Your task to perform on an android device: What's a good restaurant in Miami? Image 0: 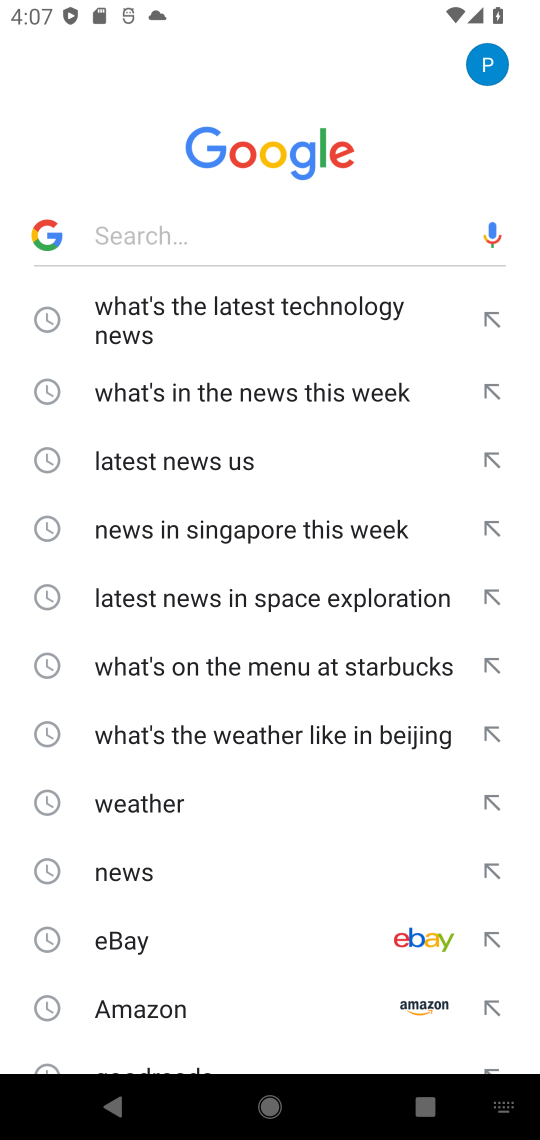
Step 0: click (253, 235)
Your task to perform on an android device: What's a good restaurant in Miami? Image 1: 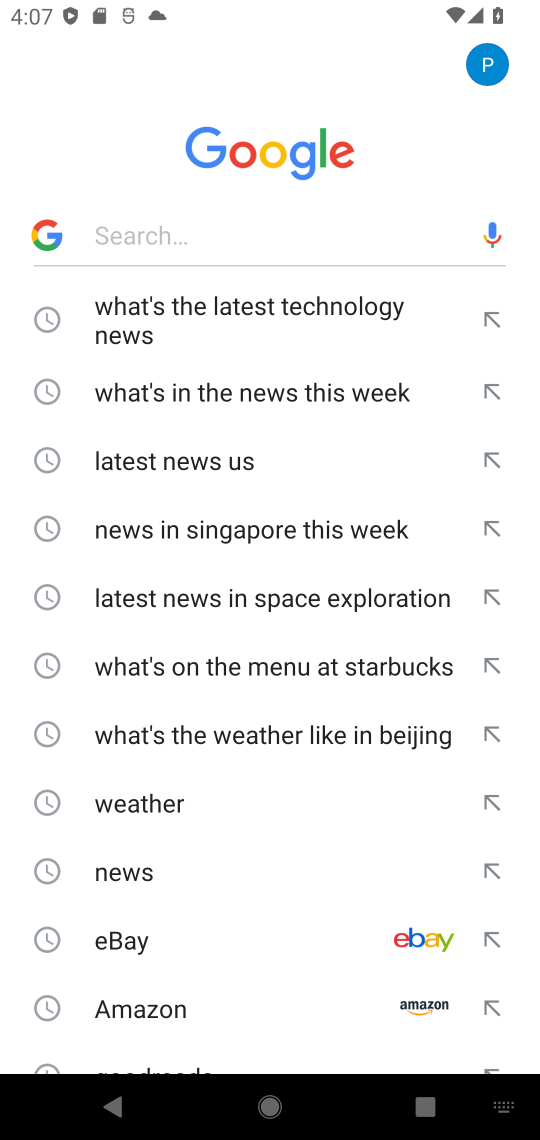
Step 1: type "What's a good restaurant in Miami?"
Your task to perform on an android device: What's a good restaurant in Miami? Image 2: 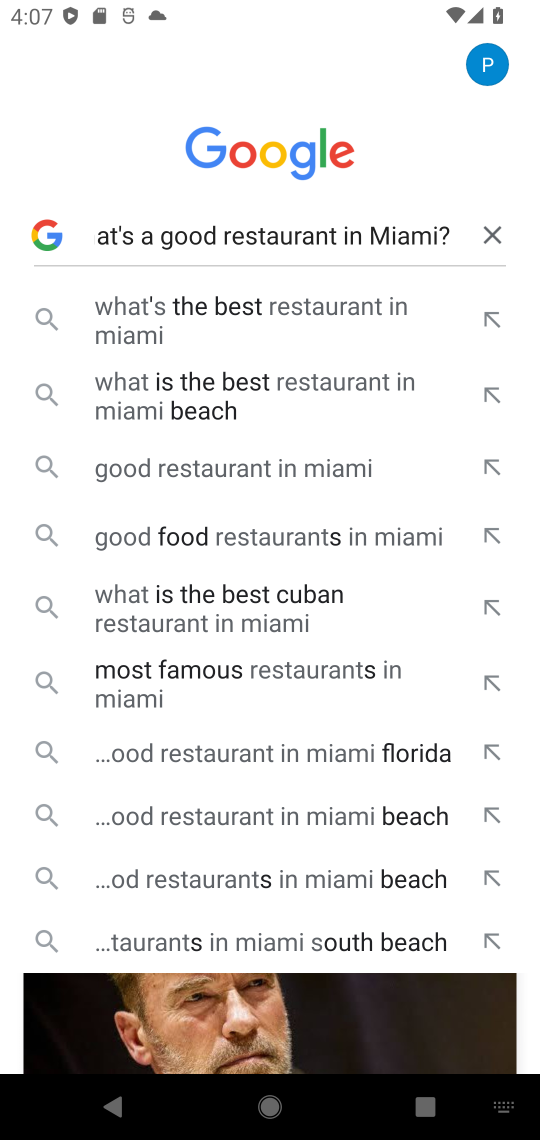
Step 2: click (162, 327)
Your task to perform on an android device: What's a good restaurant in Miami? Image 3: 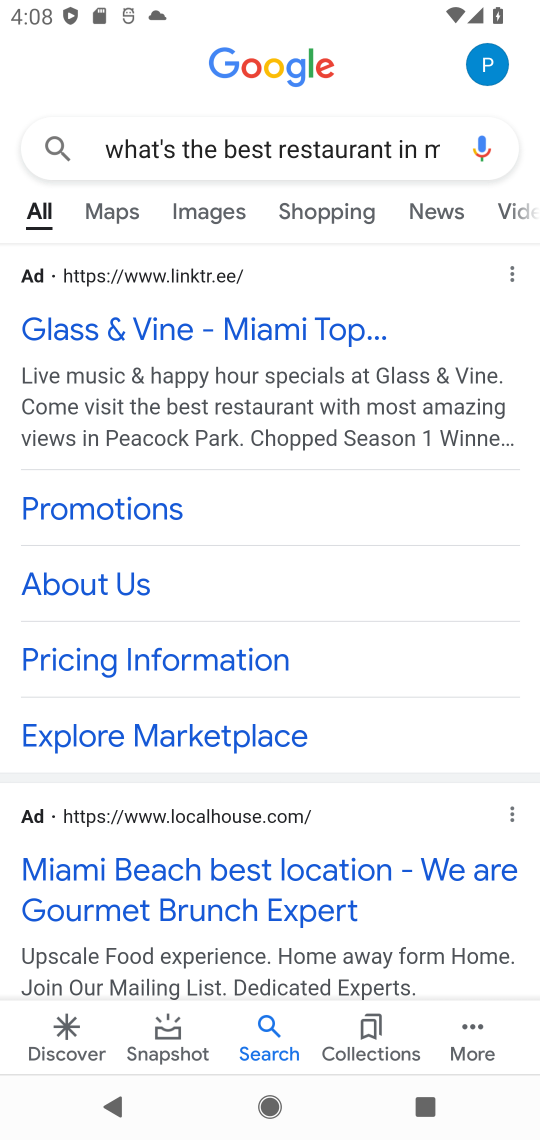
Step 3: click (129, 343)
Your task to perform on an android device: What's a good restaurant in Miami? Image 4: 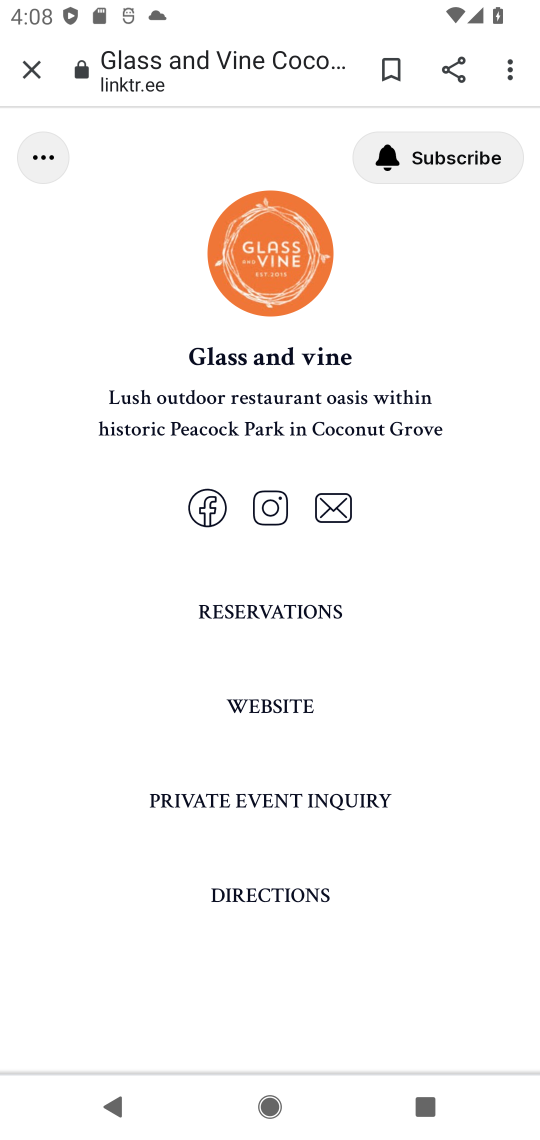
Step 4: task complete